Your task to perform on an android device: toggle airplane mode Image 0: 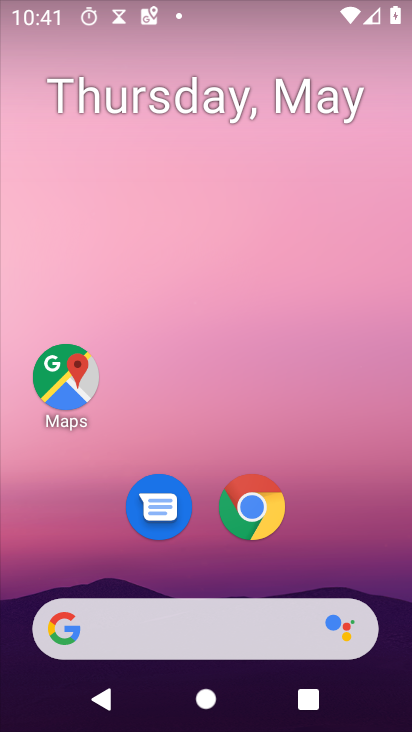
Step 0: drag from (339, 513) to (213, 15)
Your task to perform on an android device: toggle airplane mode Image 1: 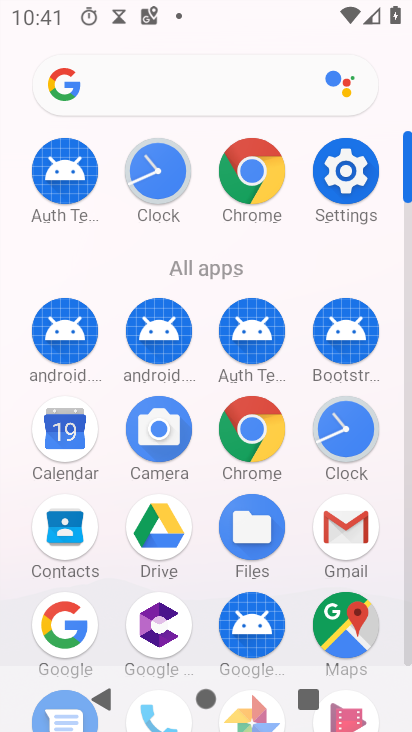
Step 1: drag from (0, 596) to (18, 297)
Your task to perform on an android device: toggle airplane mode Image 2: 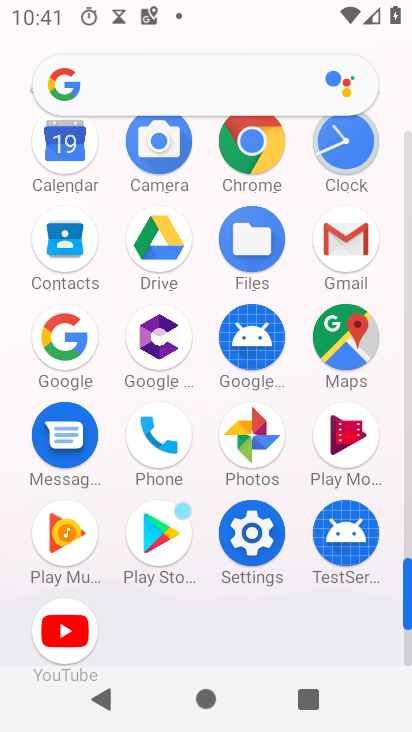
Step 2: click (254, 530)
Your task to perform on an android device: toggle airplane mode Image 3: 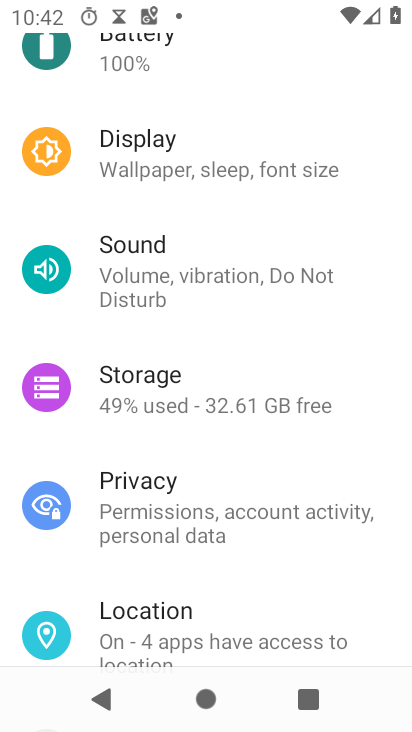
Step 3: drag from (266, 128) to (280, 600)
Your task to perform on an android device: toggle airplane mode Image 4: 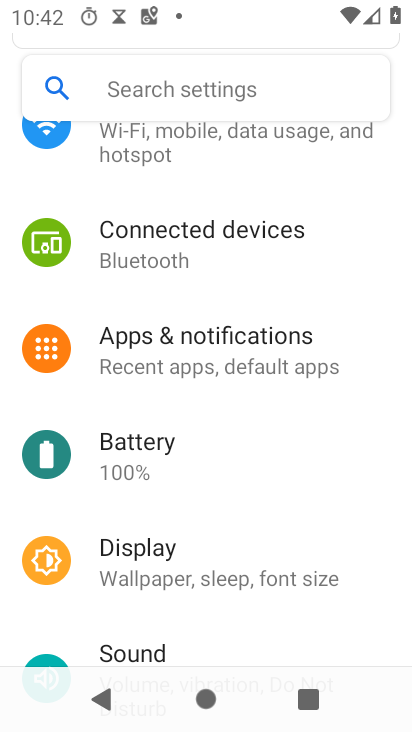
Step 4: drag from (281, 240) to (267, 598)
Your task to perform on an android device: toggle airplane mode Image 5: 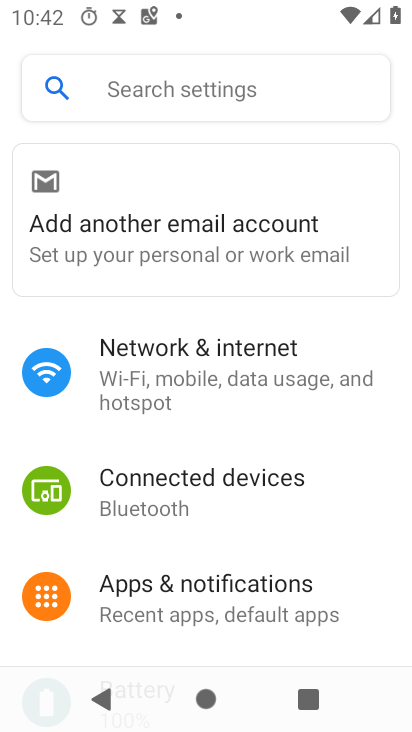
Step 5: click (246, 367)
Your task to perform on an android device: toggle airplane mode Image 6: 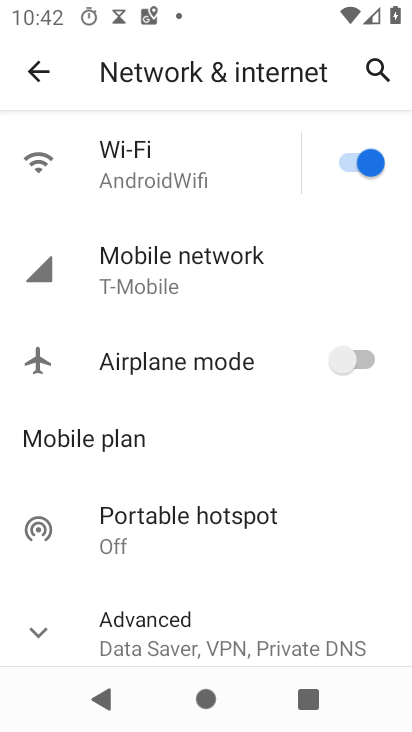
Step 6: click (369, 351)
Your task to perform on an android device: toggle airplane mode Image 7: 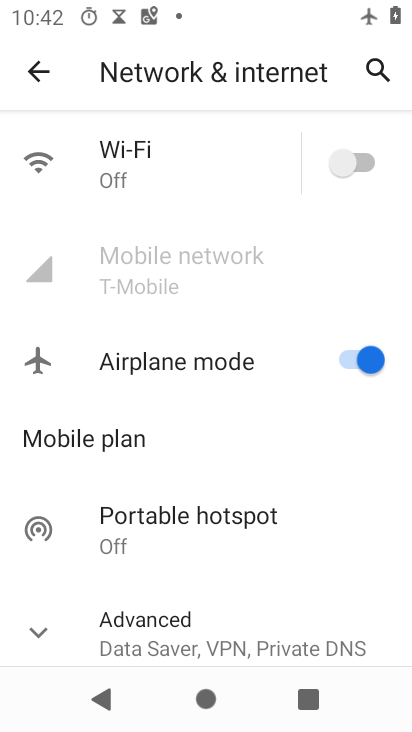
Step 7: task complete